Your task to perform on an android device: turn on wifi Image 0: 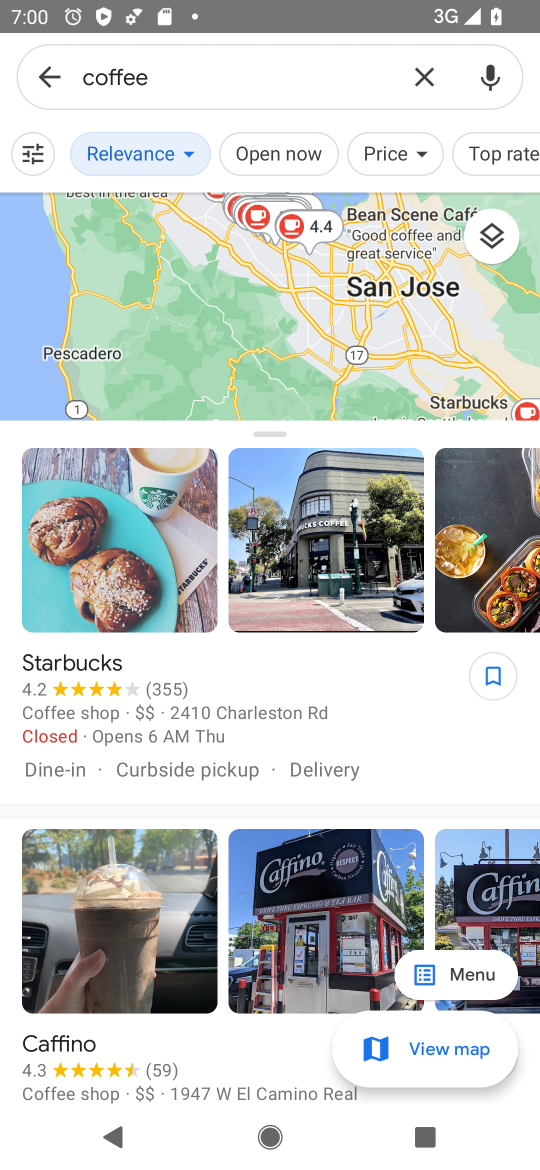
Step 0: press home button
Your task to perform on an android device: turn on wifi Image 1: 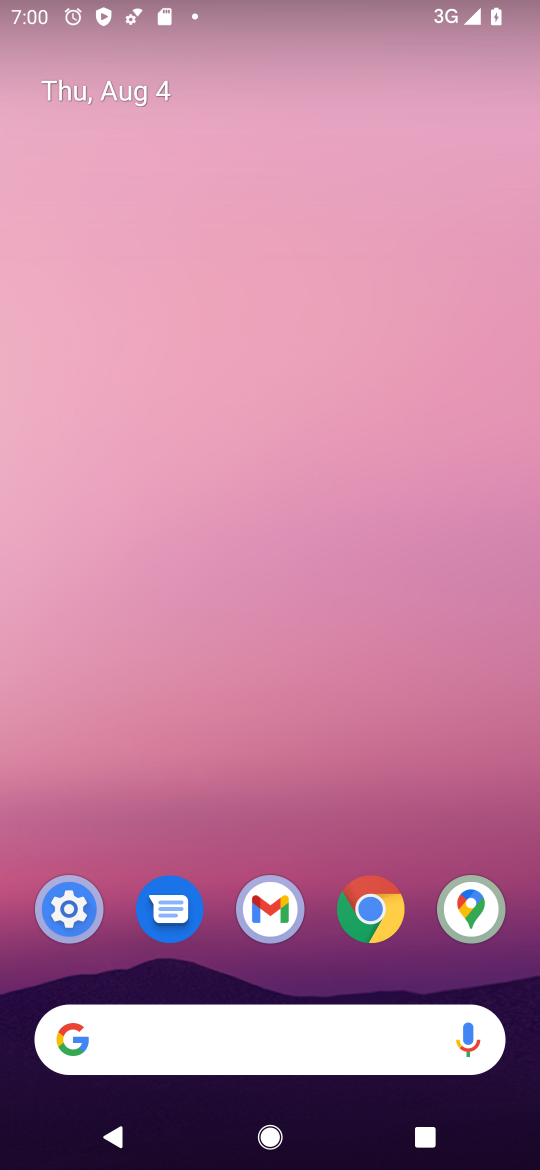
Step 1: drag from (308, 926) to (384, 215)
Your task to perform on an android device: turn on wifi Image 2: 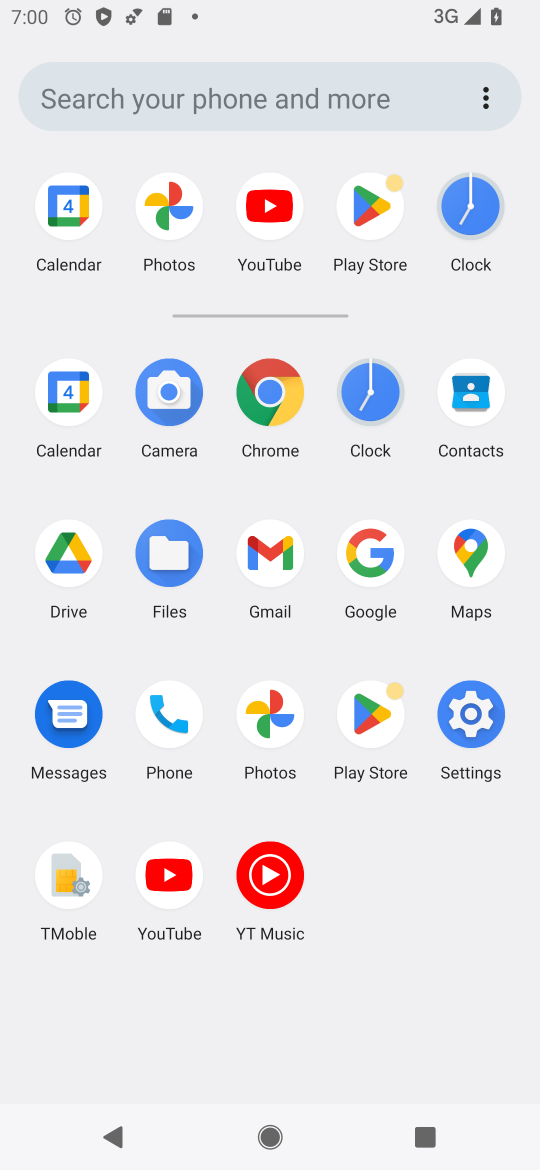
Step 2: click (479, 715)
Your task to perform on an android device: turn on wifi Image 3: 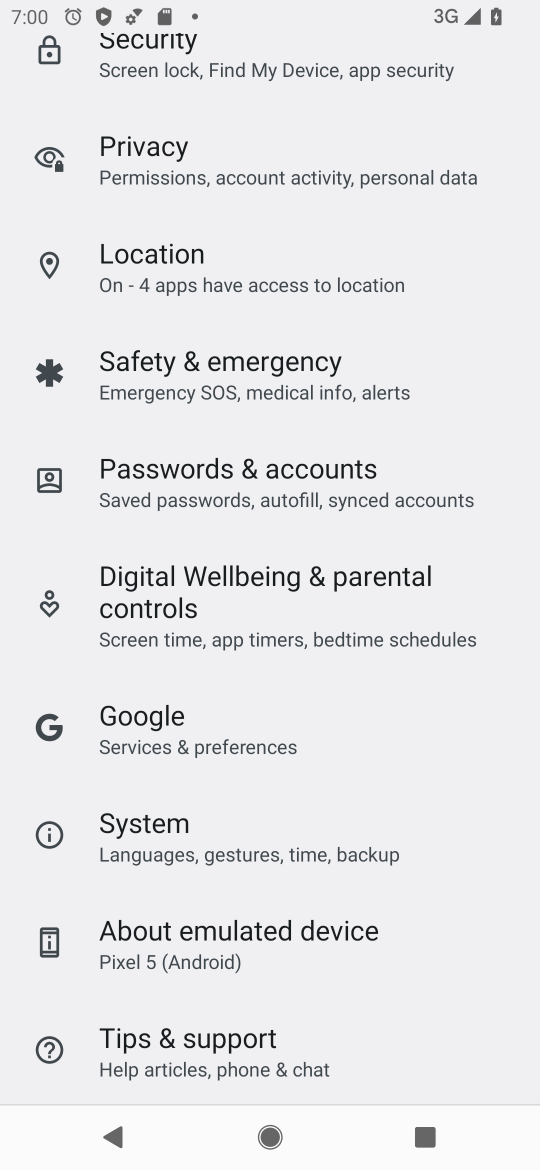
Step 3: drag from (280, 386) to (280, 1166)
Your task to perform on an android device: turn on wifi Image 4: 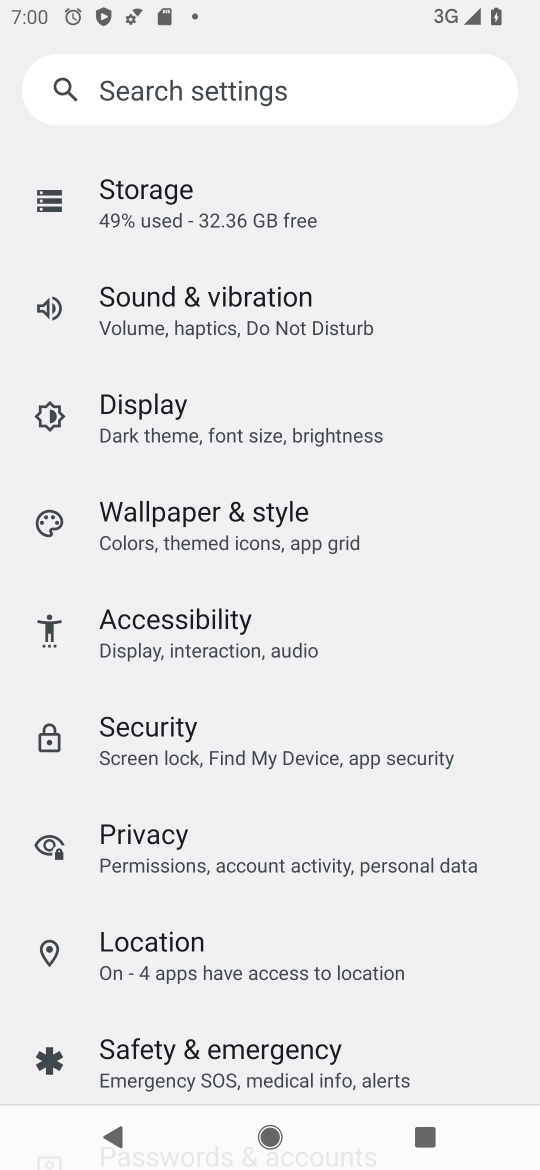
Step 4: drag from (382, 387) to (419, 1129)
Your task to perform on an android device: turn on wifi Image 5: 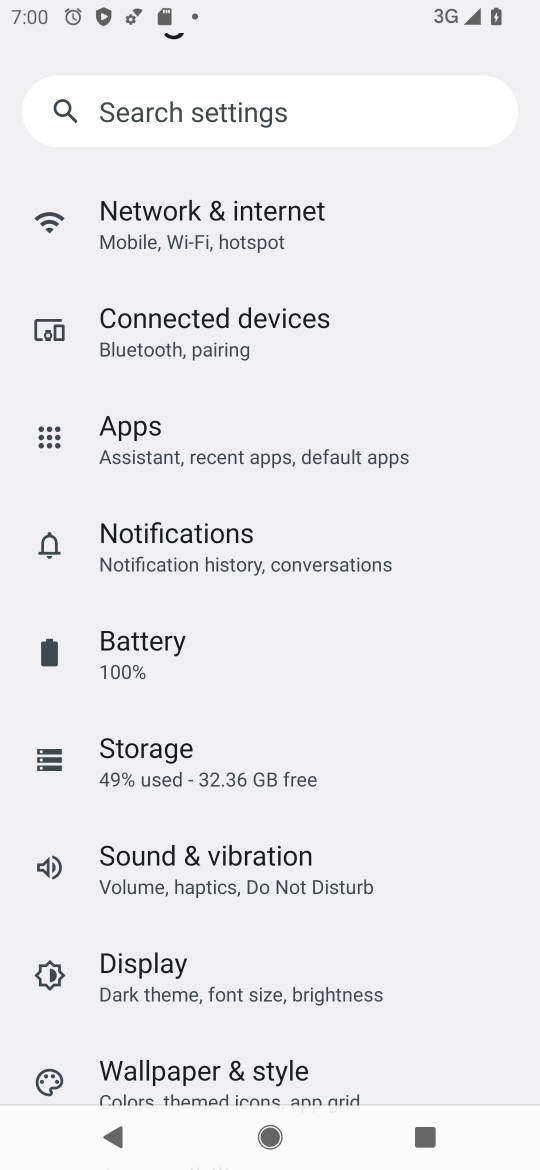
Step 5: click (187, 199)
Your task to perform on an android device: turn on wifi Image 6: 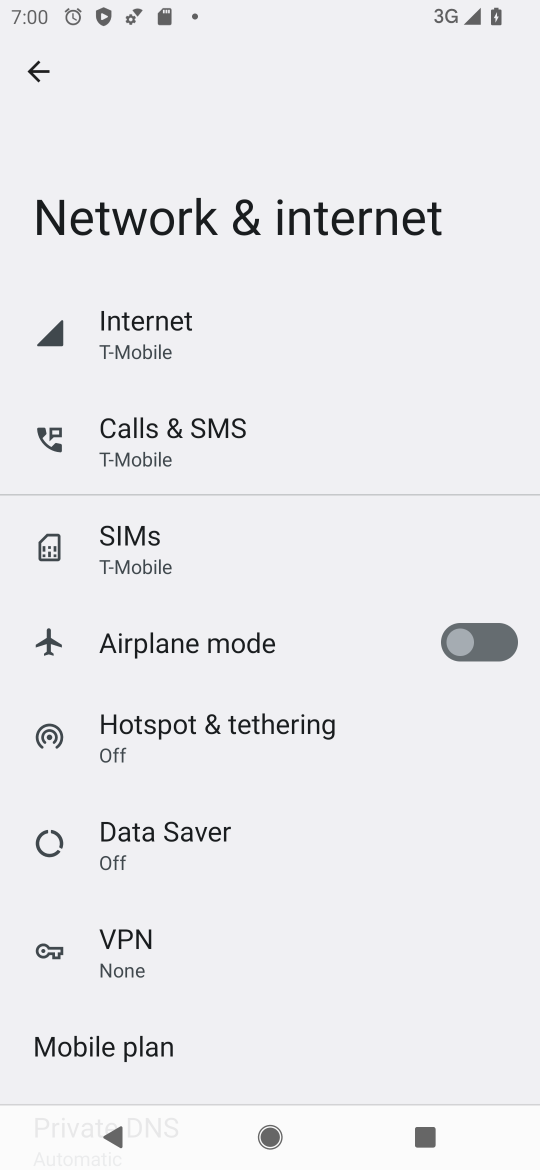
Step 6: click (102, 344)
Your task to perform on an android device: turn on wifi Image 7: 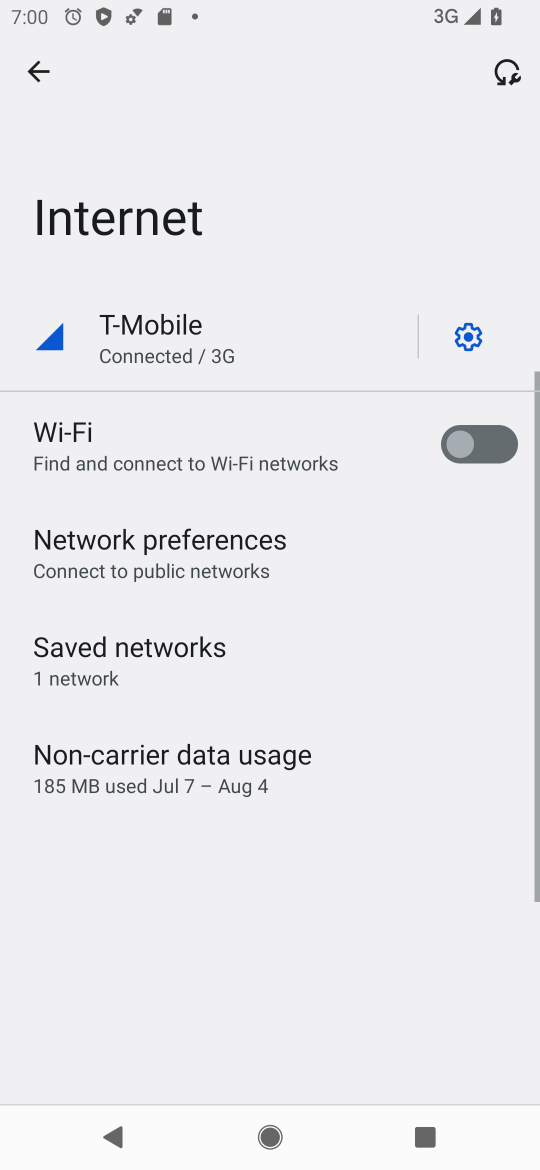
Step 7: click (68, 429)
Your task to perform on an android device: turn on wifi Image 8: 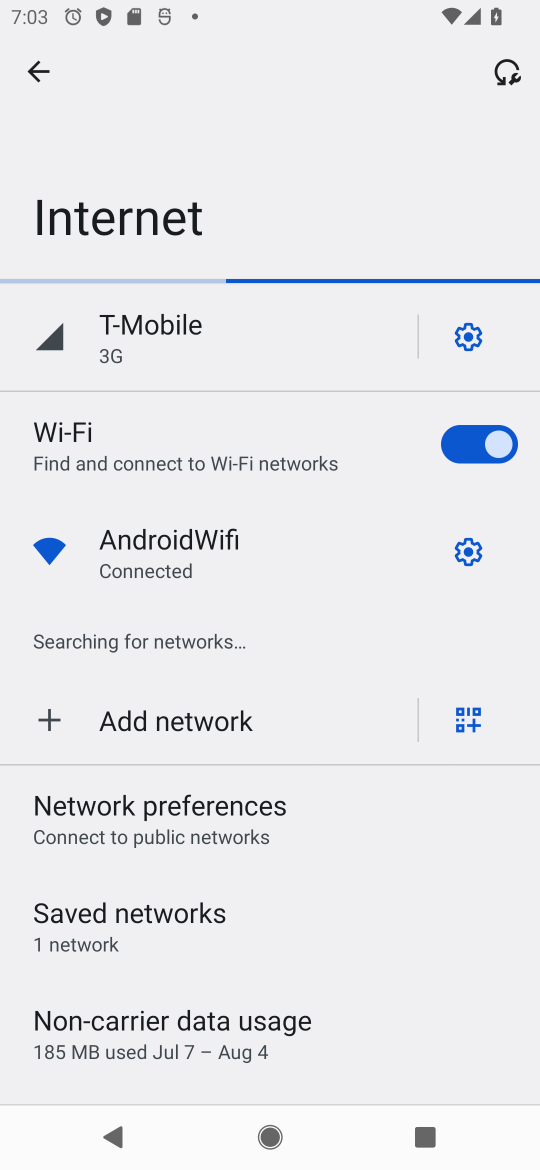
Step 8: task complete